Your task to perform on an android device: Open the map Image 0: 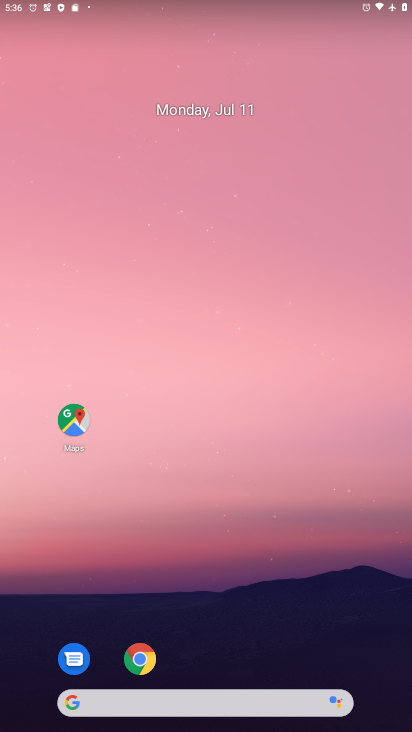
Step 0: click (73, 420)
Your task to perform on an android device: Open the map Image 1: 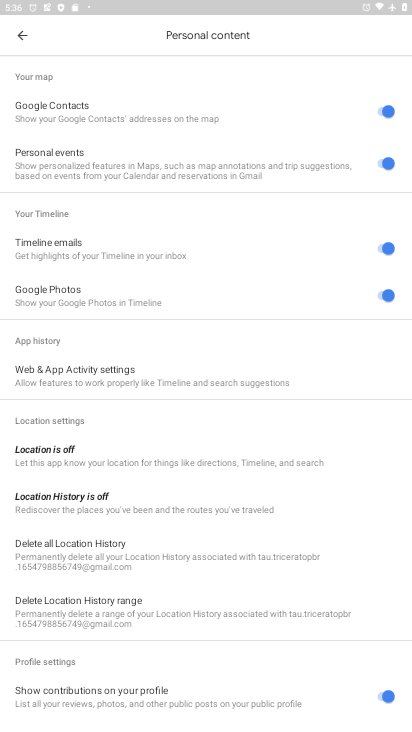
Step 1: task complete